Your task to perform on an android device: toggle show notifications on the lock screen Image 0: 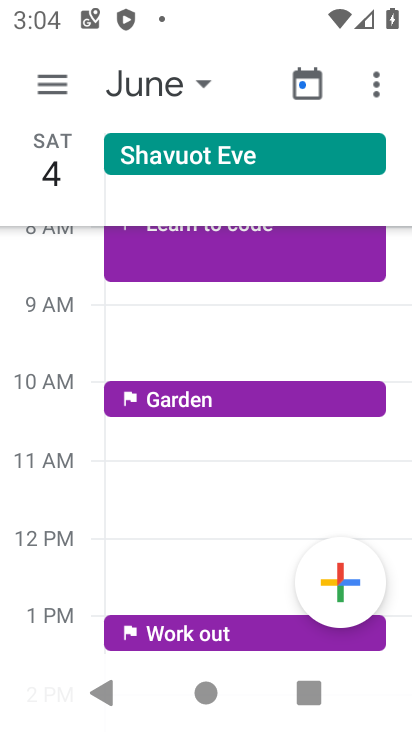
Step 0: press home button
Your task to perform on an android device: toggle show notifications on the lock screen Image 1: 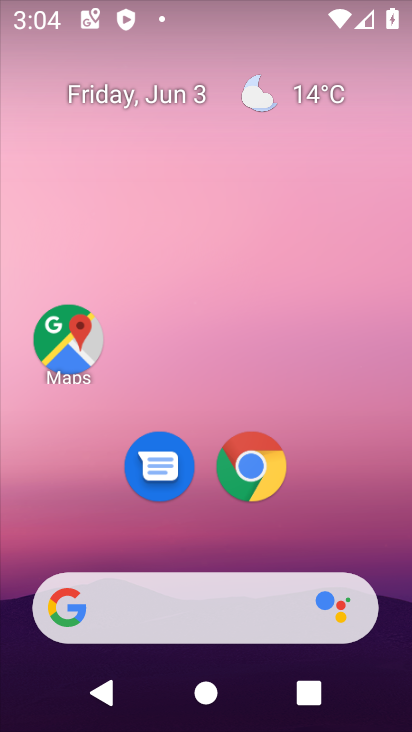
Step 1: drag from (334, 507) to (278, 111)
Your task to perform on an android device: toggle show notifications on the lock screen Image 2: 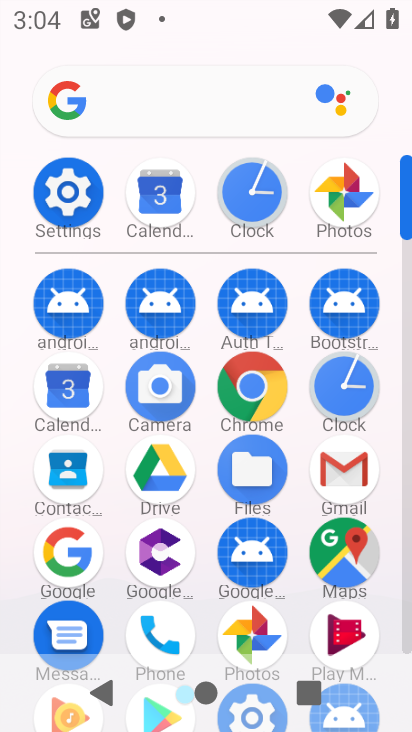
Step 2: click (89, 204)
Your task to perform on an android device: toggle show notifications on the lock screen Image 3: 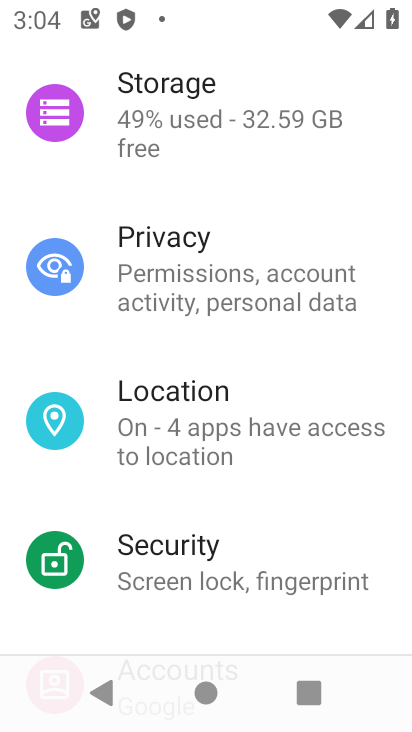
Step 3: drag from (262, 165) to (319, 477)
Your task to perform on an android device: toggle show notifications on the lock screen Image 4: 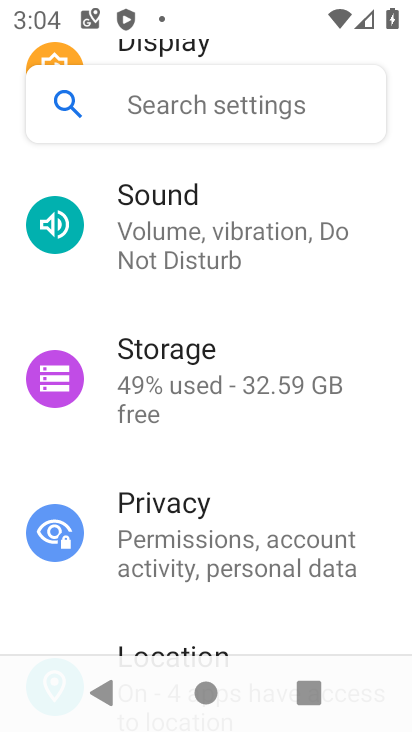
Step 4: drag from (351, 243) to (358, 538)
Your task to perform on an android device: toggle show notifications on the lock screen Image 5: 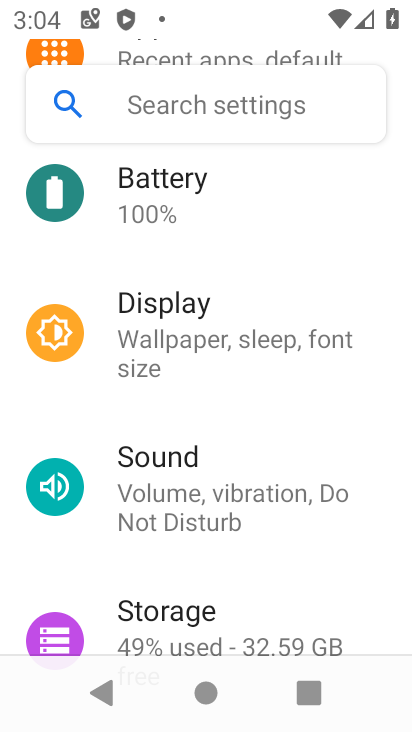
Step 5: drag from (250, 244) to (293, 584)
Your task to perform on an android device: toggle show notifications on the lock screen Image 6: 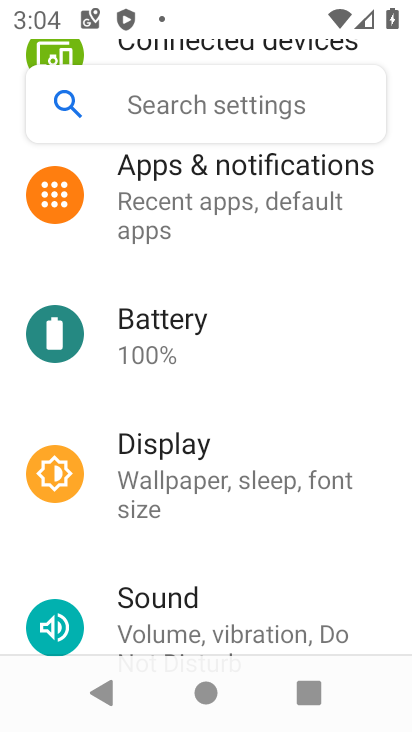
Step 6: drag from (339, 247) to (332, 494)
Your task to perform on an android device: toggle show notifications on the lock screen Image 7: 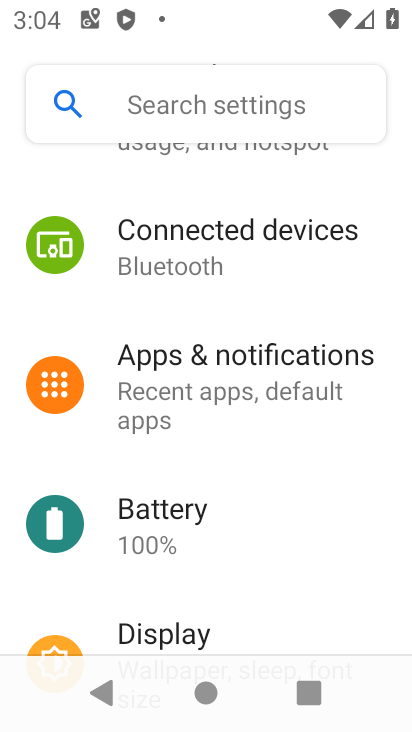
Step 7: click (264, 366)
Your task to perform on an android device: toggle show notifications on the lock screen Image 8: 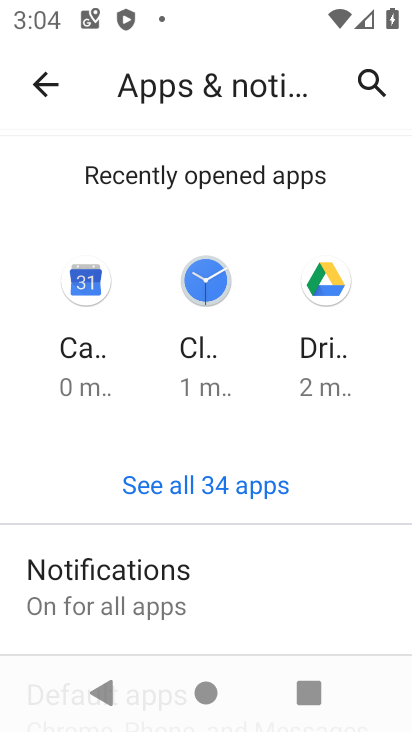
Step 8: drag from (212, 621) to (297, 244)
Your task to perform on an android device: toggle show notifications on the lock screen Image 9: 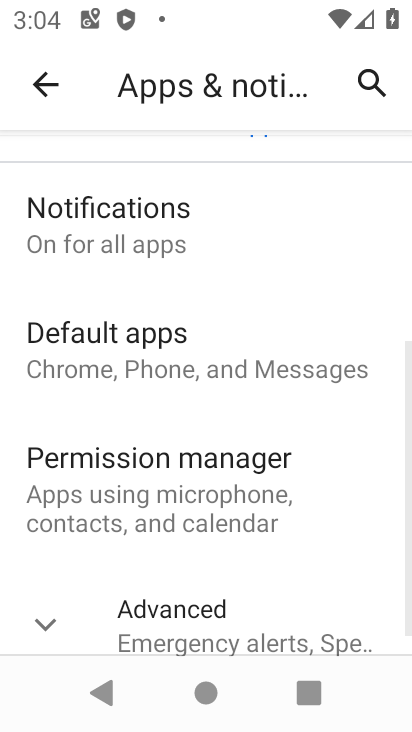
Step 9: drag from (244, 563) to (257, 297)
Your task to perform on an android device: toggle show notifications on the lock screen Image 10: 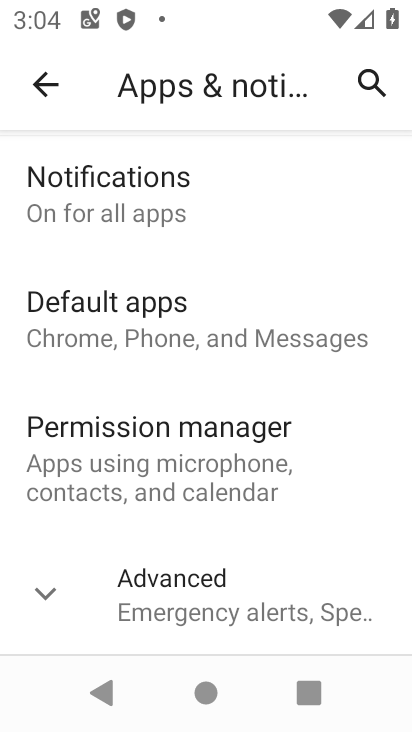
Step 10: click (191, 603)
Your task to perform on an android device: toggle show notifications on the lock screen Image 11: 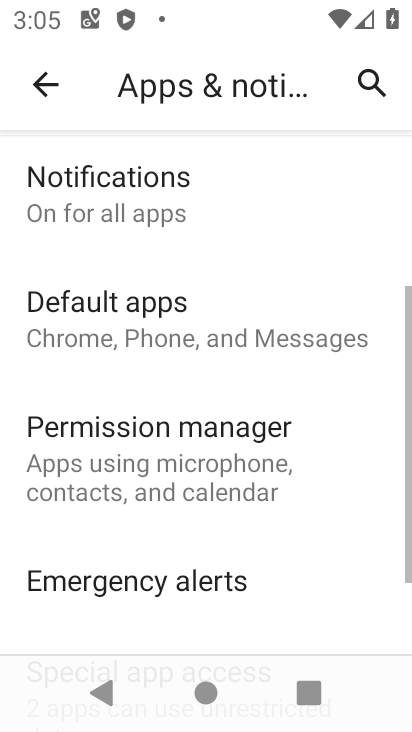
Step 11: drag from (176, 582) to (202, 242)
Your task to perform on an android device: toggle show notifications on the lock screen Image 12: 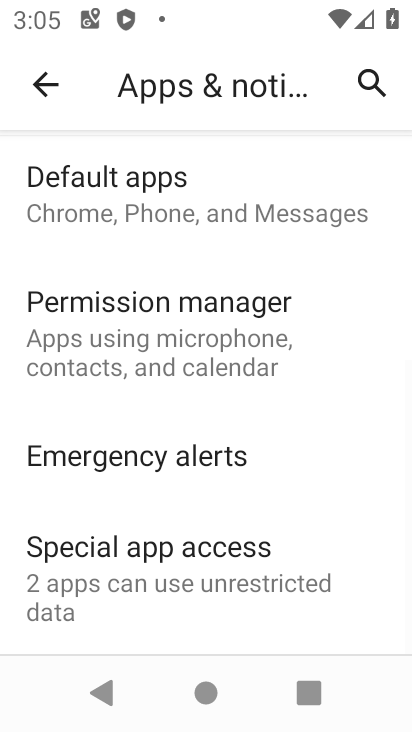
Step 12: drag from (210, 232) to (236, 558)
Your task to perform on an android device: toggle show notifications on the lock screen Image 13: 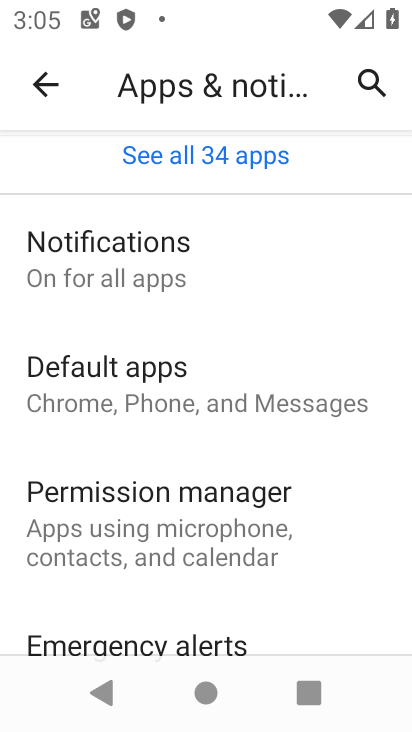
Step 13: click (231, 266)
Your task to perform on an android device: toggle show notifications on the lock screen Image 14: 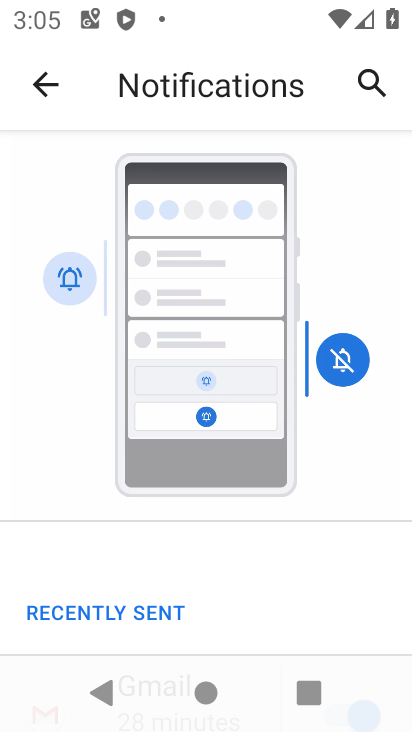
Step 14: drag from (248, 515) to (286, 138)
Your task to perform on an android device: toggle show notifications on the lock screen Image 15: 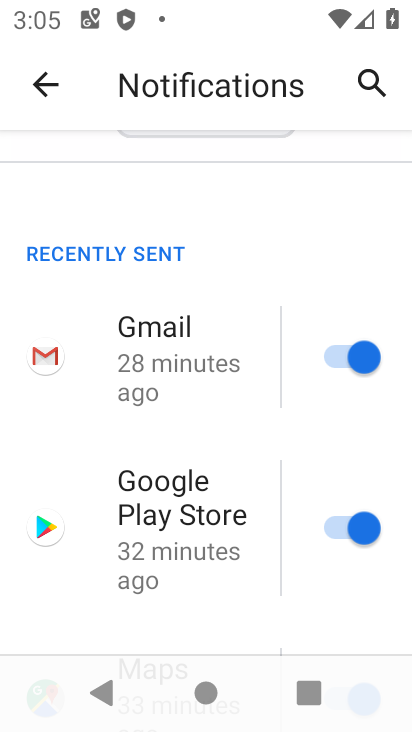
Step 15: drag from (168, 506) to (256, 170)
Your task to perform on an android device: toggle show notifications on the lock screen Image 16: 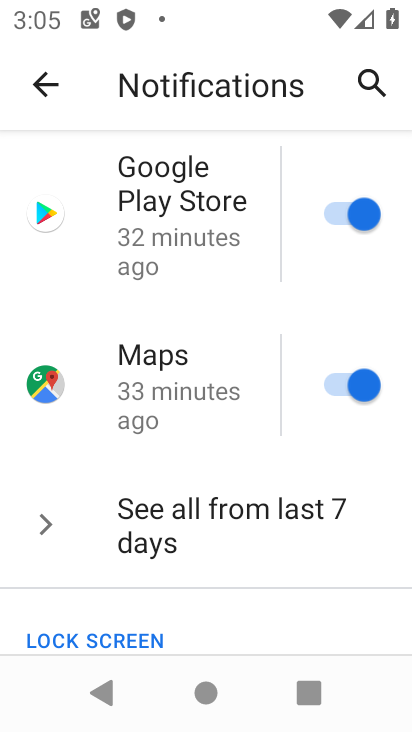
Step 16: drag from (229, 557) to (254, 213)
Your task to perform on an android device: toggle show notifications on the lock screen Image 17: 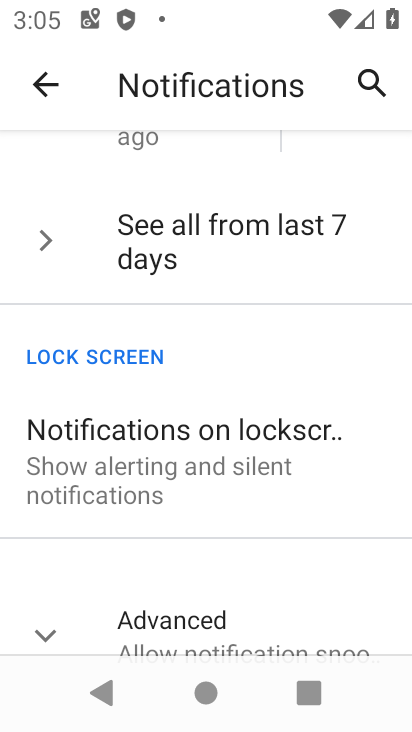
Step 17: click (210, 436)
Your task to perform on an android device: toggle show notifications on the lock screen Image 18: 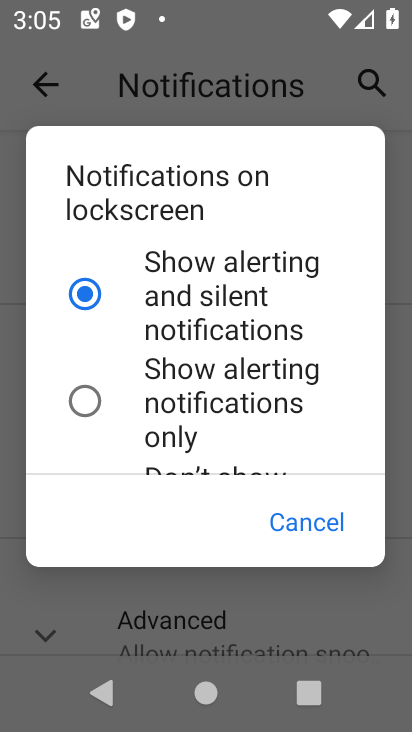
Step 18: click (77, 399)
Your task to perform on an android device: toggle show notifications on the lock screen Image 19: 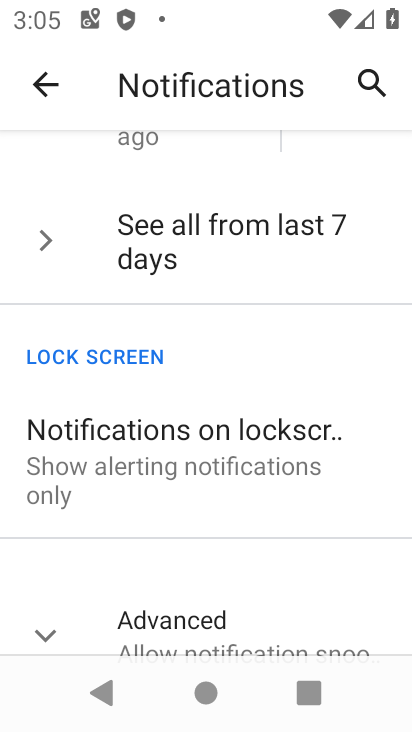
Step 19: task complete